Your task to perform on an android device: change timer sound Image 0: 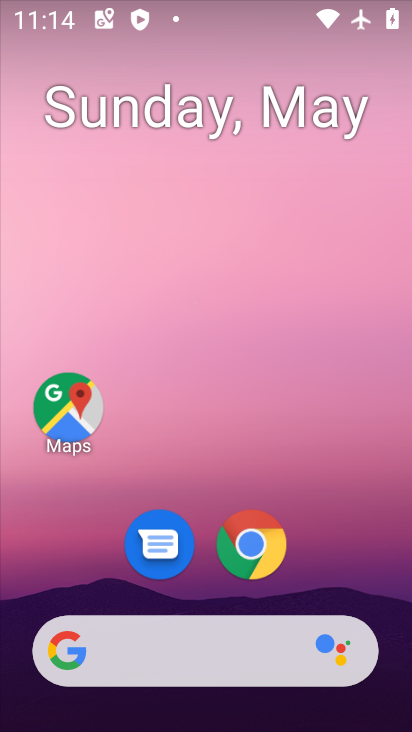
Step 0: drag from (297, 548) to (288, 192)
Your task to perform on an android device: change timer sound Image 1: 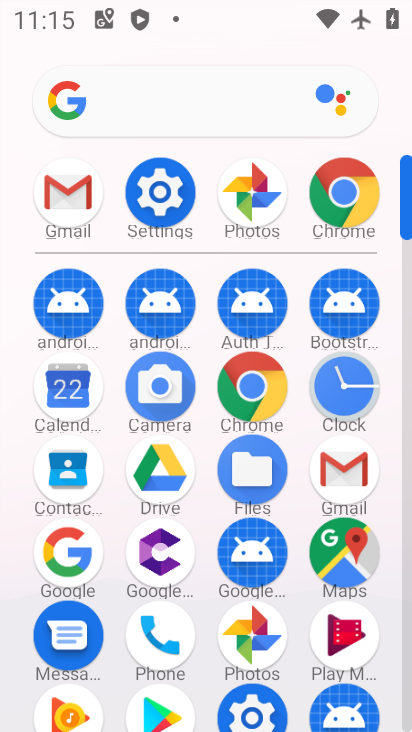
Step 1: click (334, 383)
Your task to perform on an android device: change timer sound Image 2: 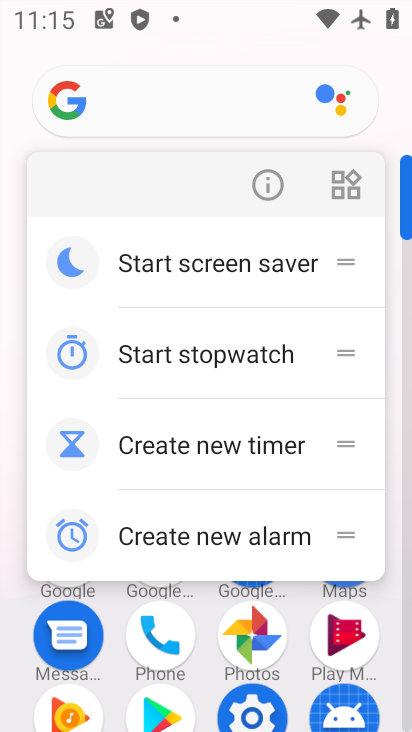
Step 2: press back button
Your task to perform on an android device: change timer sound Image 3: 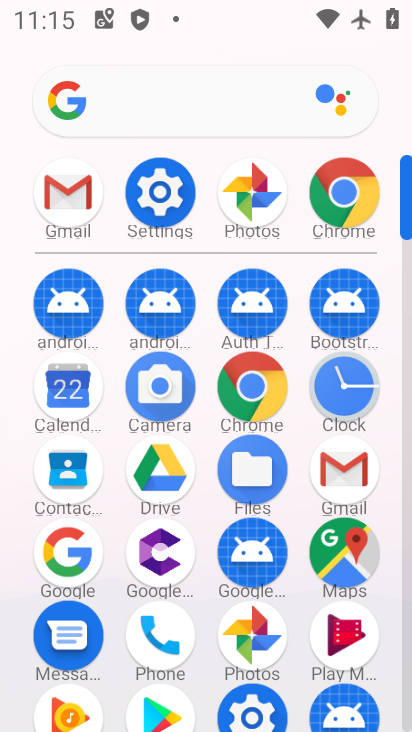
Step 3: click (339, 378)
Your task to perform on an android device: change timer sound Image 4: 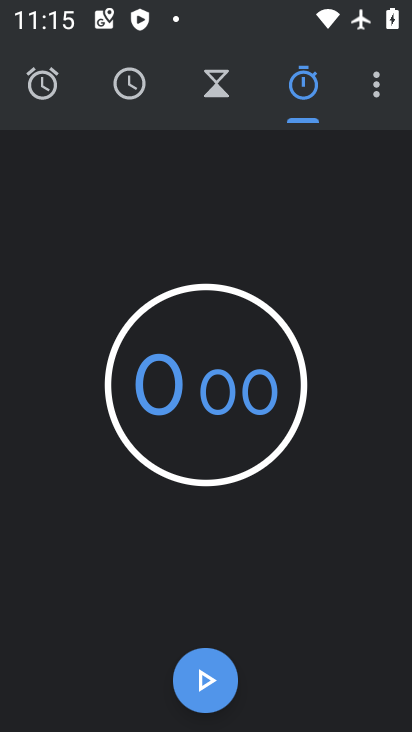
Step 4: click (373, 84)
Your task to perform on an android device: change timer sound Image 5: 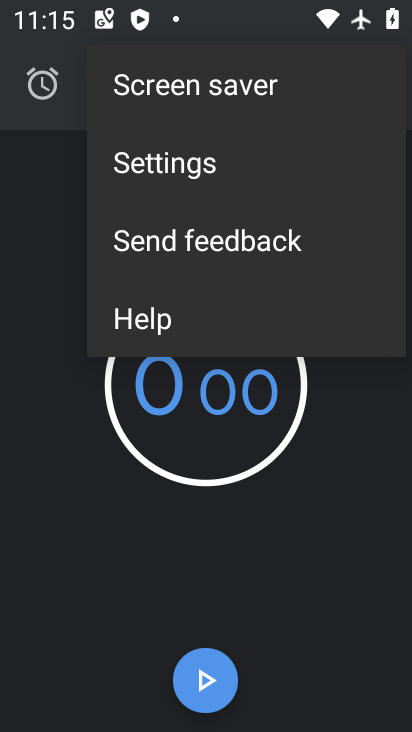
Step 5: click (187, 183)
Your task to perform on an android device: change timer sound Image 6: 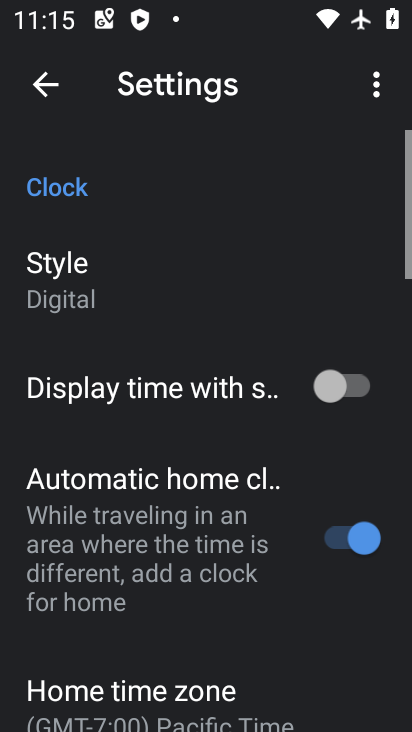
Step 6: drag from (200, 649) to (233, 231)
Your task to perform on an android device: change timer sound Image 7: 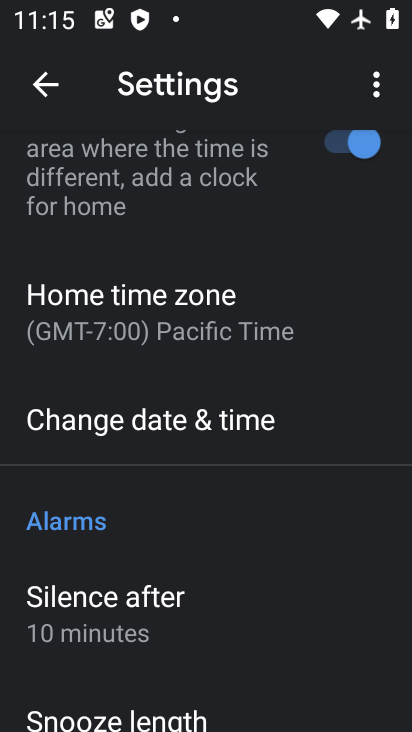
Step 7: drag from (213, 637) to (236, 342)
Your task to perform on an android device: change timer sound Image 8: 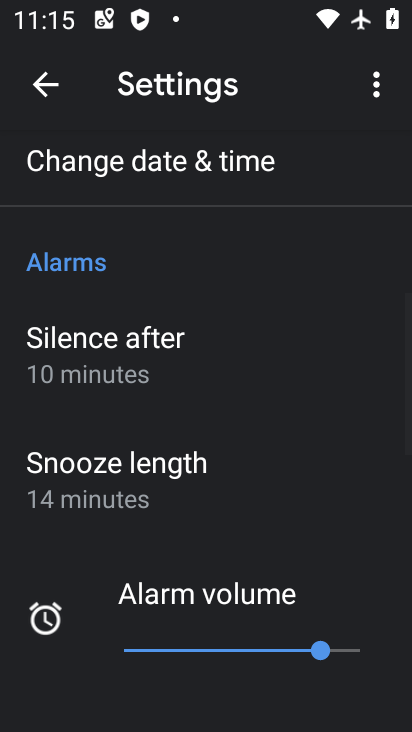
Step 8: drag from (225, 654) to (248, 300)
Your task to perform on an android device: change timer sound Image 9: 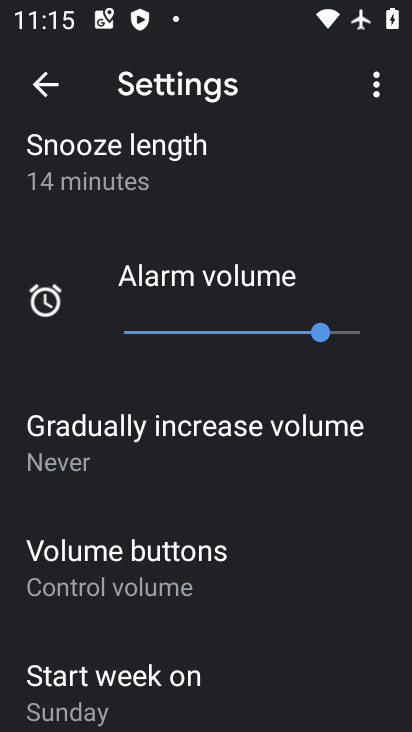
Step 9: drag from (147, 719) to (201, 433)
Your task to perform on an android device: change timer sound Image 10: 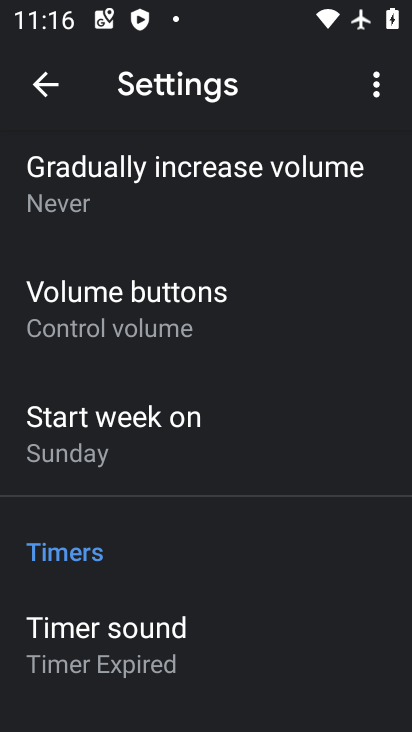
Step 10: click (168, 615)
Your task to perform on an android device: change timer sound Image 11: 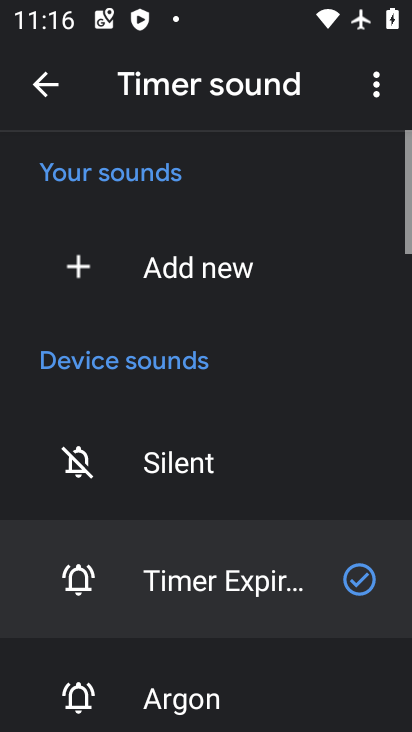
Step 11: drag from (168, 605) to (224, 258)
Your task to perform on an android device: change timer sound Image 12: 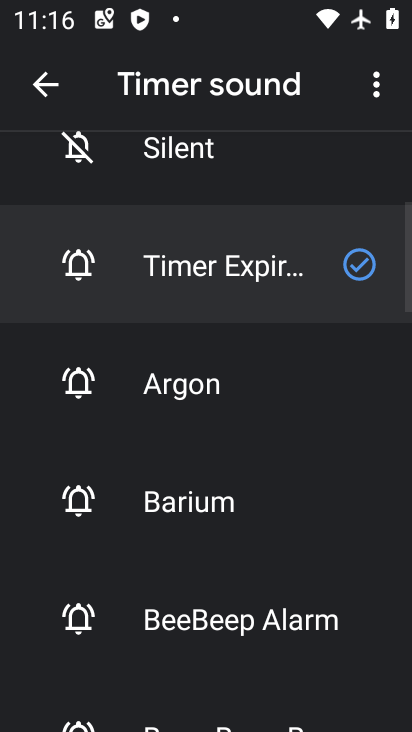
Step 12: click (179, 602)
Your task to perform on an android device: change timer sound Image 13: 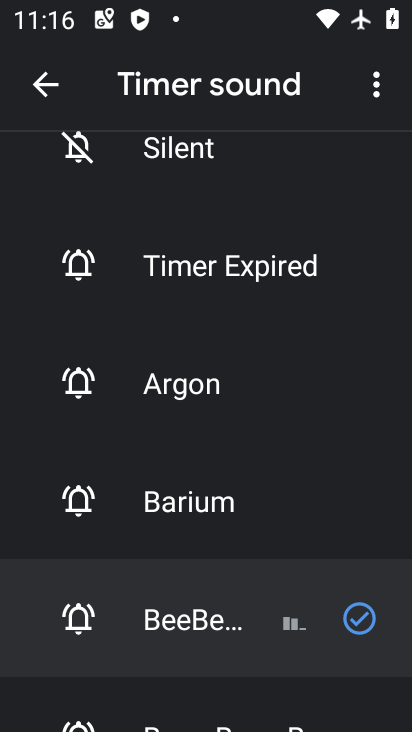
Step 13: task complete